Your task to perform on an android device: toggle airplane mode Image 0: 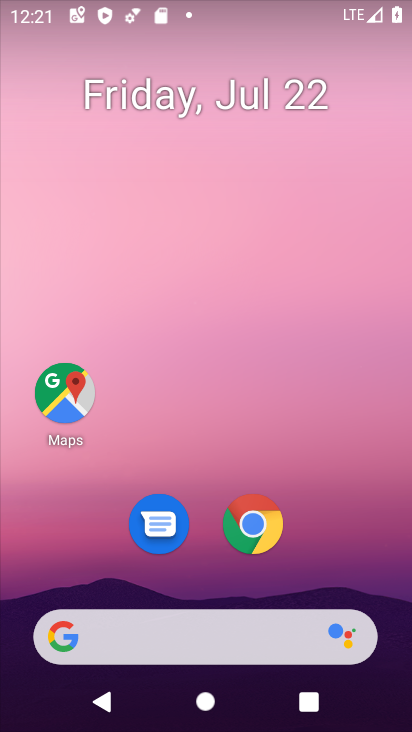
Step 0: drag from (315, 568) to (313, 8)
Your task to perform on an android device: toggle airplane mode Image 1: 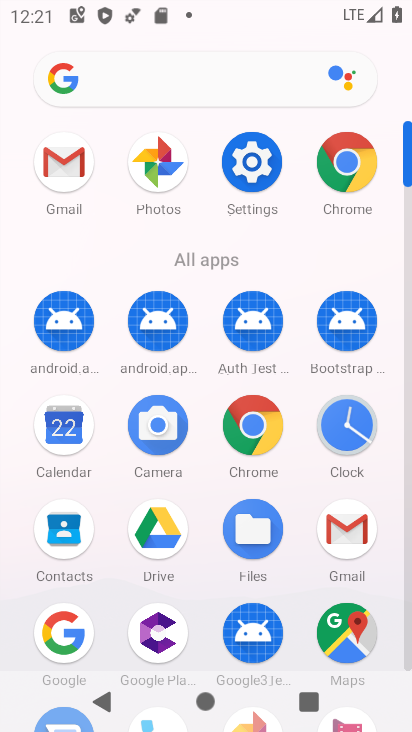
Step 1: click (260, 148)
Your task to perform on an android device: toggle airplane mode Image 2: 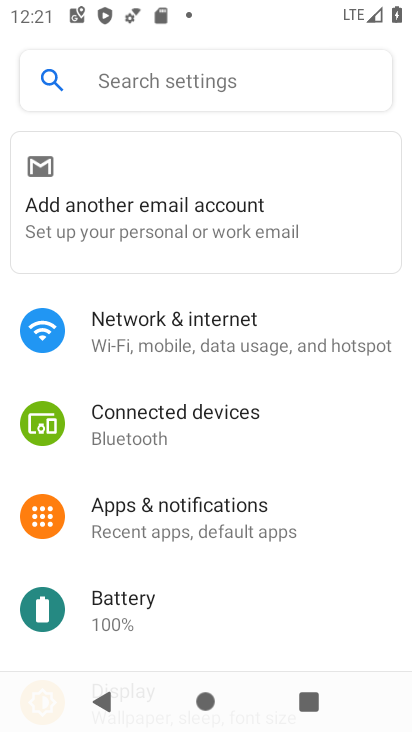
Step 2: click (232, 335)
Your task to perform on an android device: toggle airplane mode Image 3: 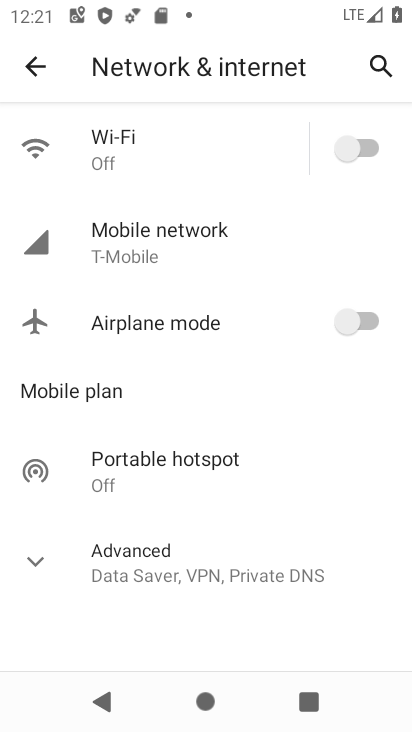
Step 3: click (362, 310)
Your task to perform on an android device: toggle airplane mode Image 4: 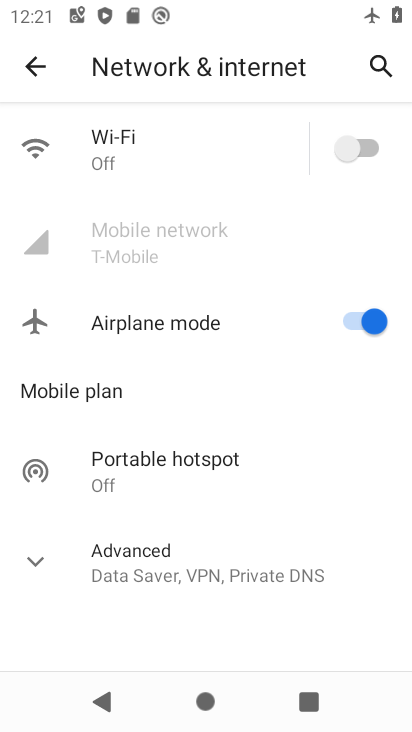
Step 4: task complete